Your task to perform on an android device: refresh tabs in the chrome app Image 0: 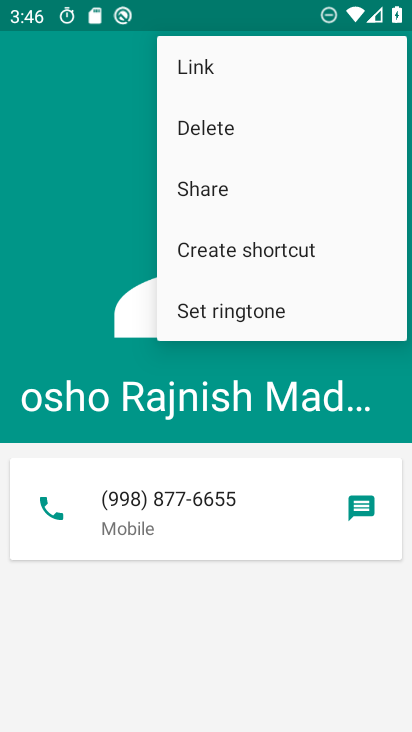
Step 0: press home button
Your task to perform on an android device: refresh tabs in the chrome app Image 1: 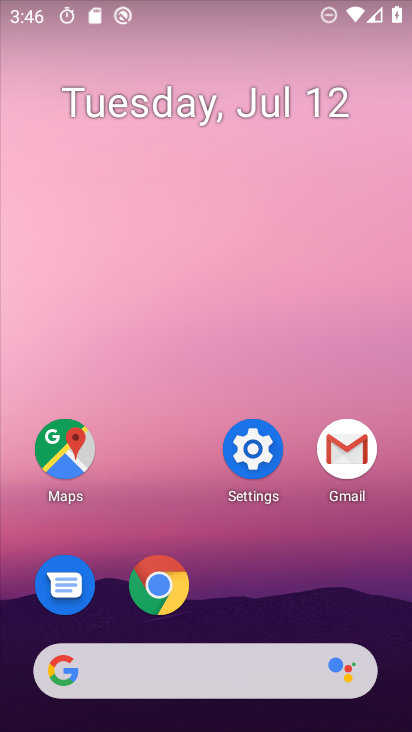
Step 1: click (156, 579)
Your task to perform on an android device: refresh tabs in the chrome app Image 2: 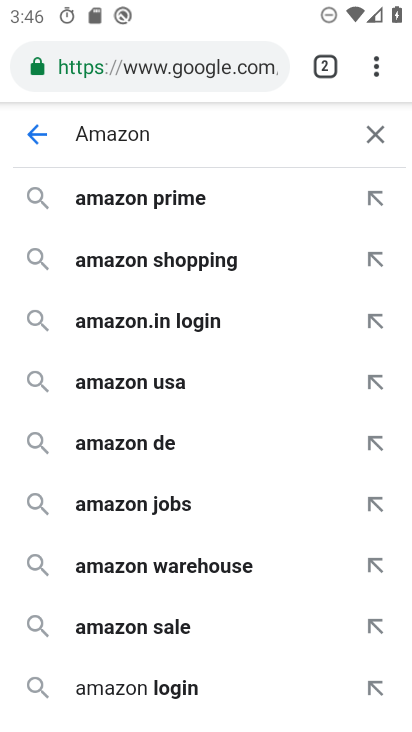
Step 2: click (376, 127)
Your task to perform on an android device: refresh tabs in the chrome app Image 3: 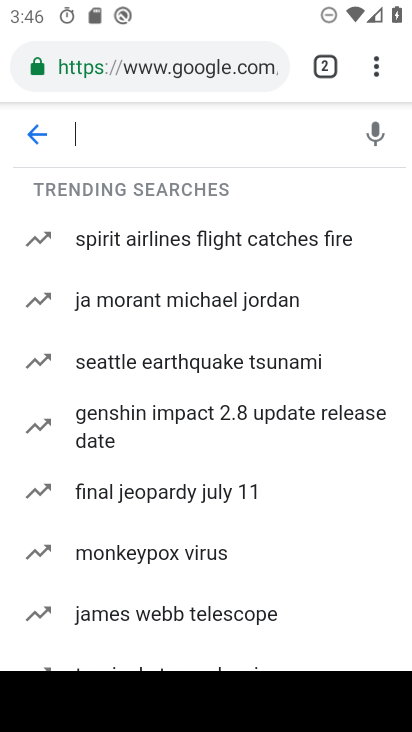
Step 3: click (377, 70)
Your task to perform on an android device: refresh tabs in the chrome app Image 4: 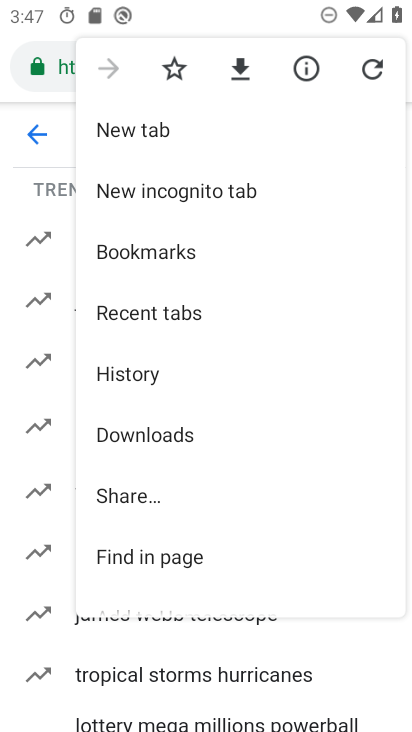
Step 4: click (380, 66)
Your task to perform on an android device: refresh tabs in the chrome app Image 5: 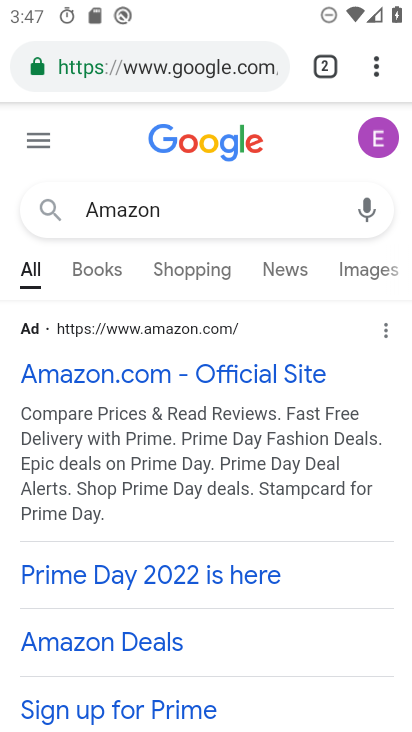
Step 5: task complete